Your task to perform on an android device: Open Google Maps and go to "Timeline" Image 0: 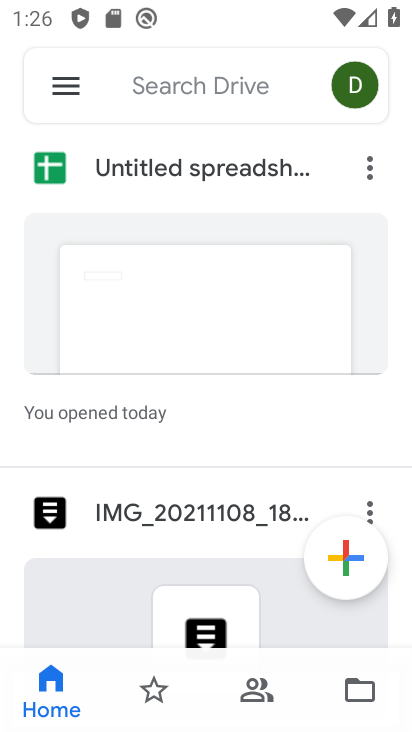
Step 0: press home button
Your task to perform on an android device: Open Google Maps and go to "Timeline" Image 1: 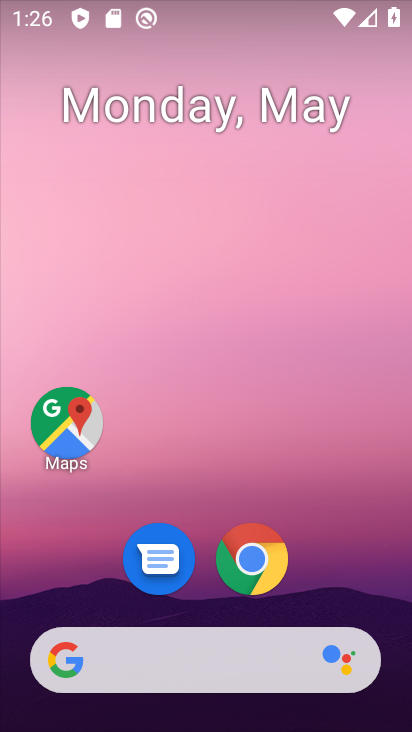
Step 1: click (72, 433)
Your task to perform on an android device: Open Google Maps and go to "Timeline" Image 2: 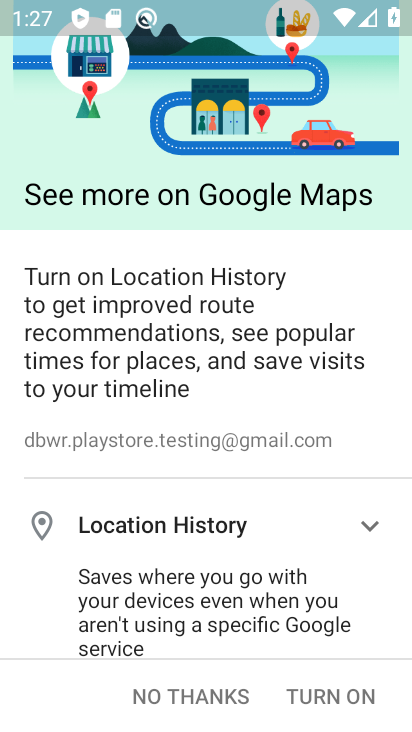
Step 2: click (194, 683)
Your task to perform on an android device: Open Google Maps and go to "Timeline" Image 3: 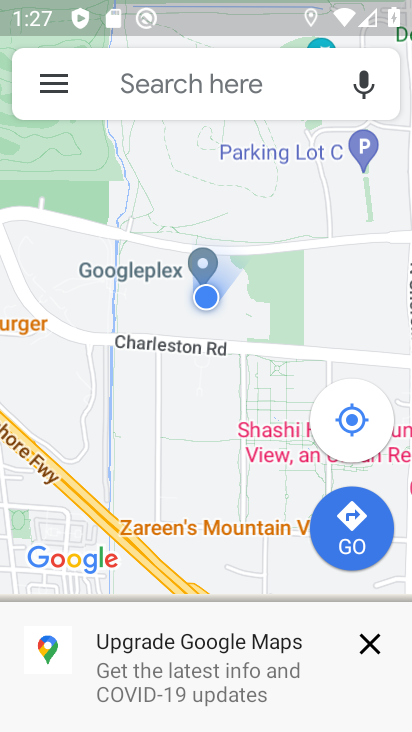
Step 3: click (33, 85)
Your task to perform on an android device: Open Google Maps and go to "Timeline" Image 4: 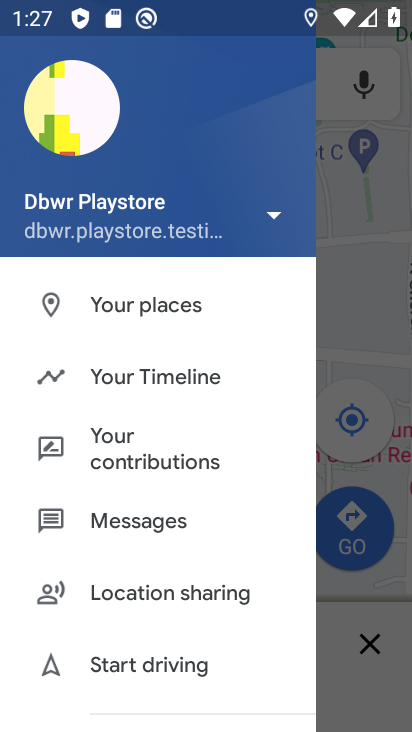
Step 4: click (185, 381)
Your task to perform on an android device: Open Google Maps and go to "Timeline" Image 5: 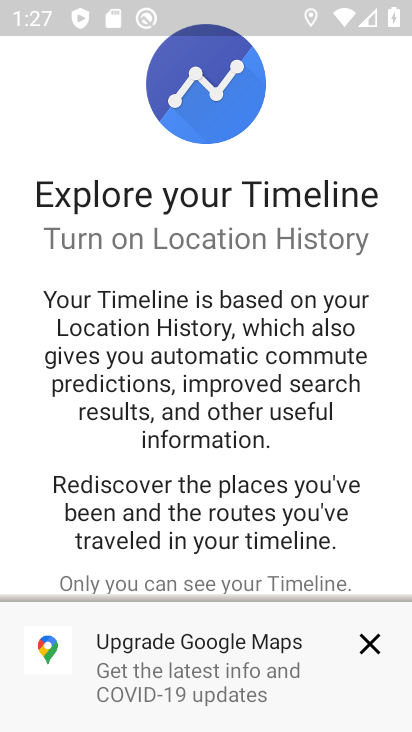
Step 5: click (381, 653)
Your task to perform on an android device: Open Google Maps and go to "Timeline" Image 6: 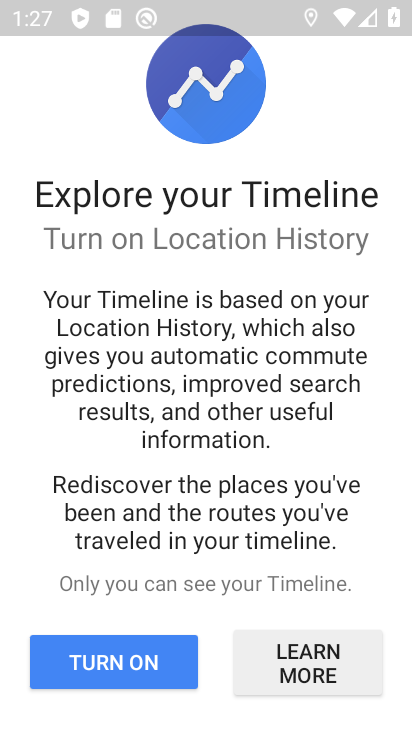
Step 6: click (167, 661)
Your task to perform on an android device: Open Google Maps and go to "Timeline" Image 7: 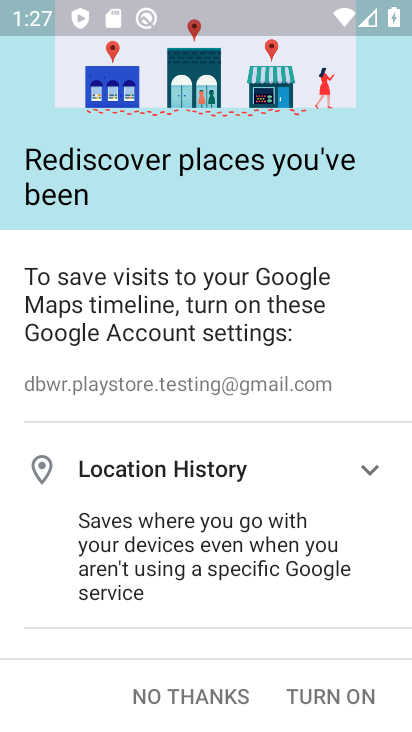
Step 7: click (191, 686)
Your task to perform on an android device: Open Google Maps and go to "Timeline" Image 8: 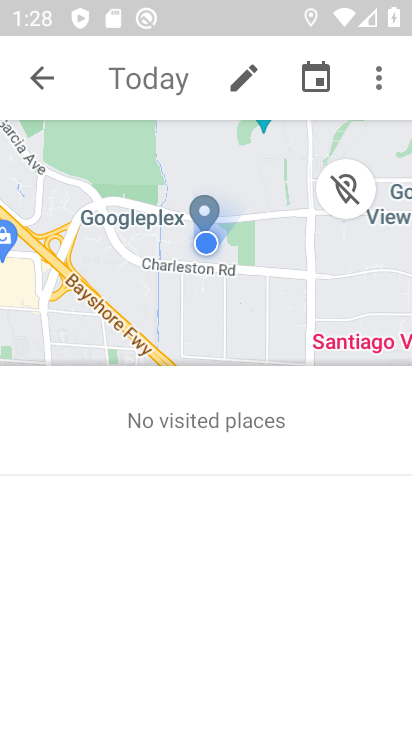
Step 8: task complete